Your task to perform on an android device: all mails in gmail Image 0: 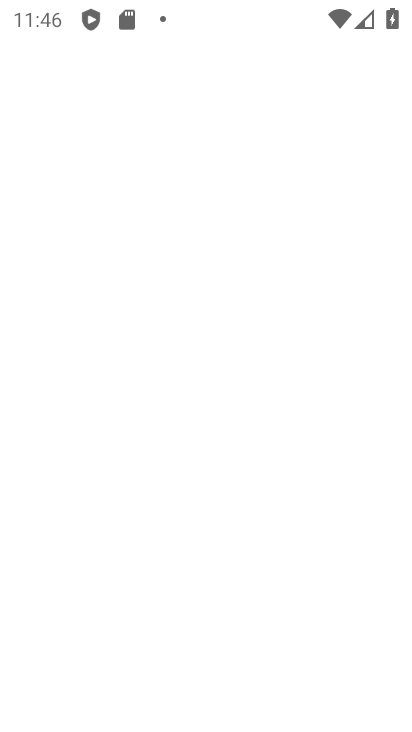
Step 0: press home button
Your task to perform on an android device: all mails in gmail Image 1: 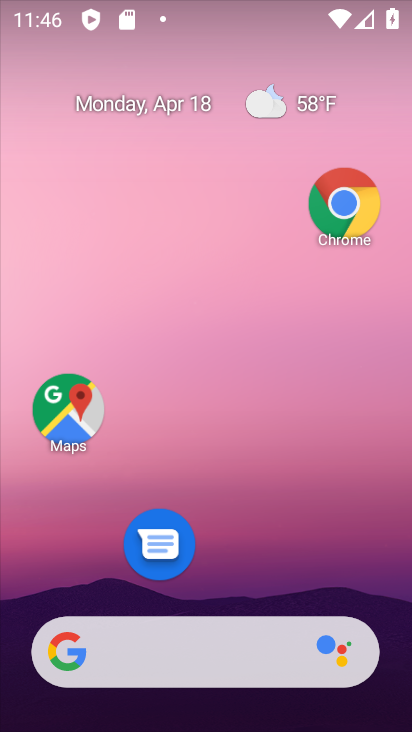
Step 1: drag from (241, 576) to (262, 142)
Your task to perform on an android device: all mails in gmail Image 2: 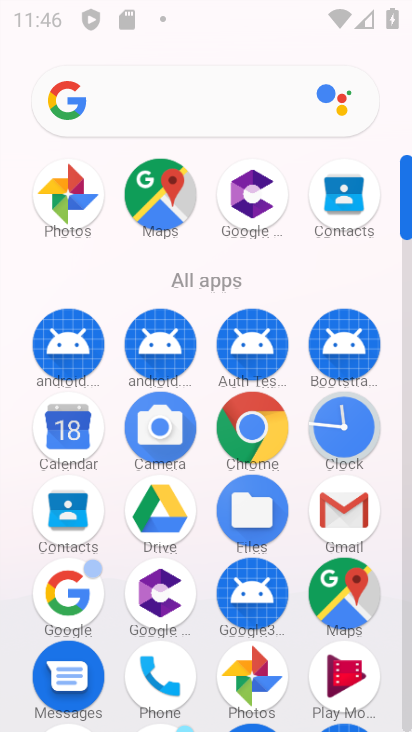
Step 2: click (347, 511)
Your task to perform on an android device: all mails in gmail Image 3: 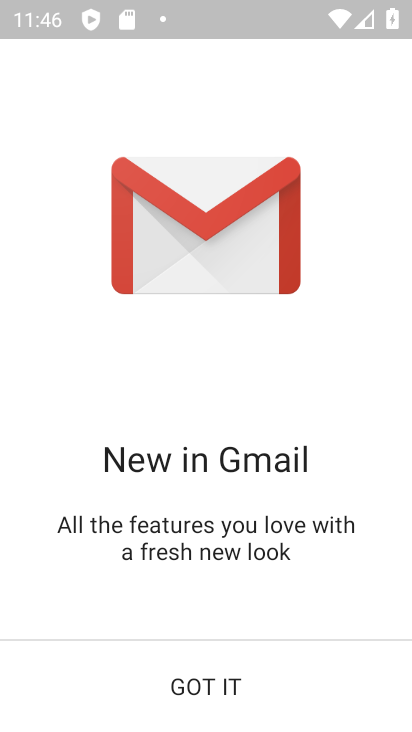
Step 3: click (210, 695)
Your task to perform on an android device: all mails in gmail Image 4: 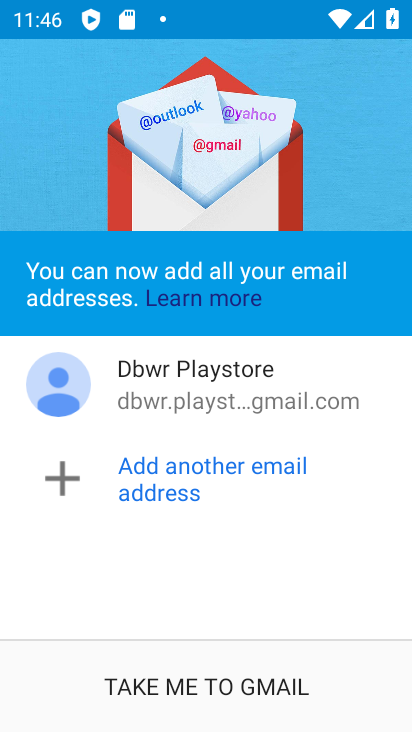
Step 4: click (210, 682)
Your task to perform on an android device: all mails in gmail Image 5: 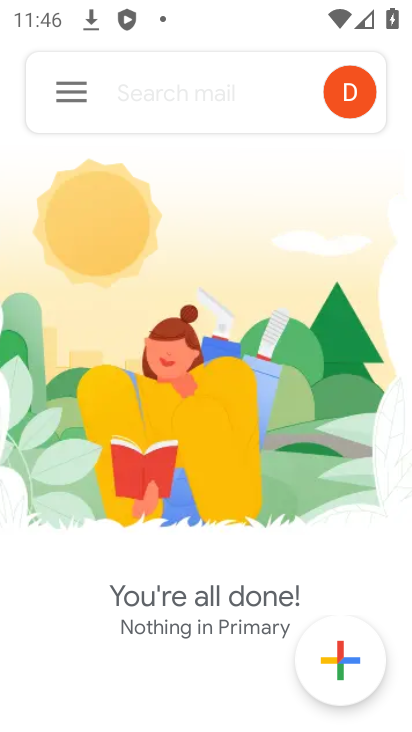
Step 5: click (74, 97)
Your task to perform on an android device: all mails in gmail Image 6: 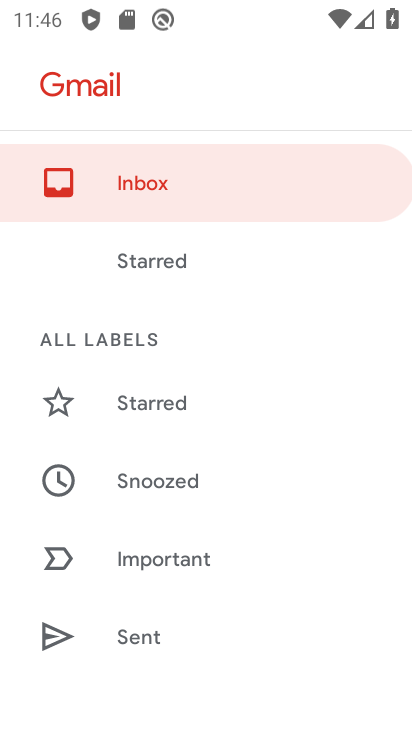
Step 6: drag from (190, 582) to (313, 79)
Your task to perform on an android device: all mails in gmail Image 7: 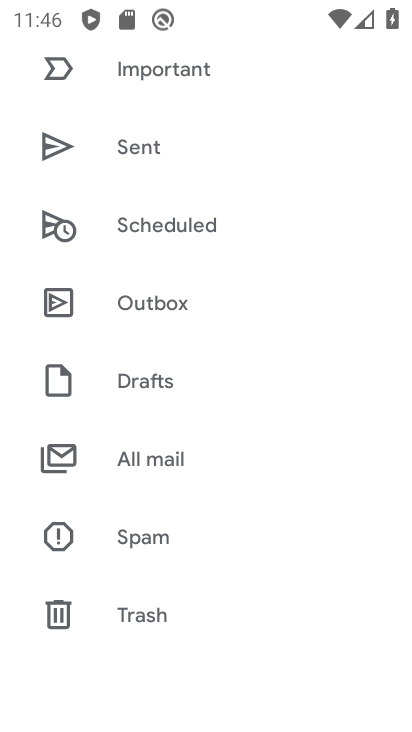
Step 7: click (150, 440)
Your task to perform on an android device: all mails in gmail Image 8: 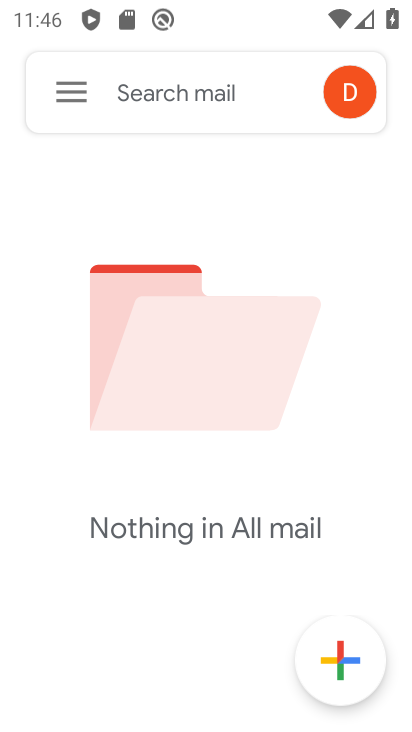
Step 8: task complete